Your task to perform on an android device: turn notification dots on Image 0: 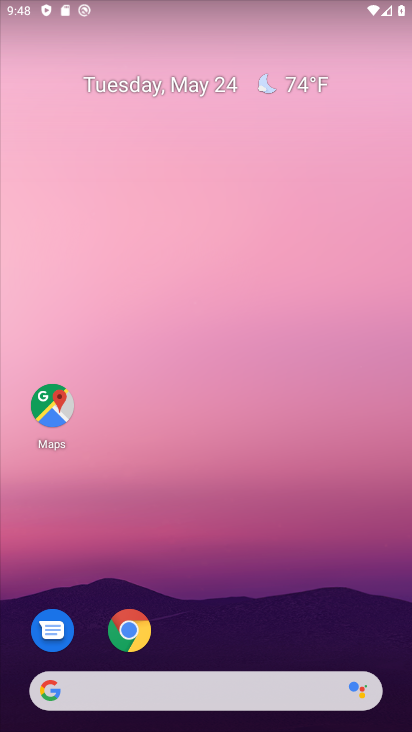
Step 0: drag from (250, 652) to (187, 206)
Your task to perform on an android device: turn notification dots on Image 1: 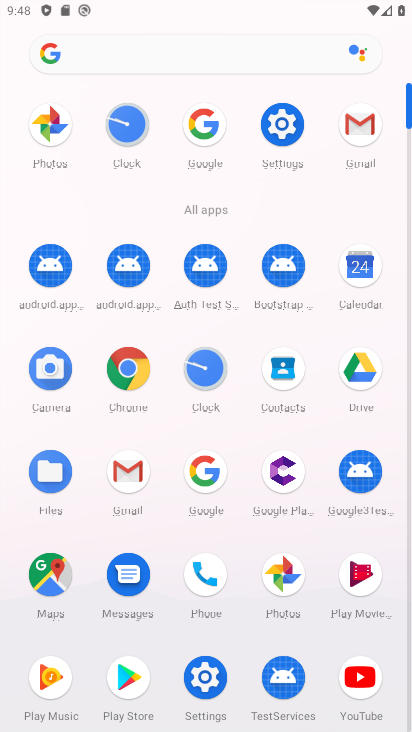
Step 1: click (284, 148)
Your task to perform on an android device: turn notification dots on Image 2: 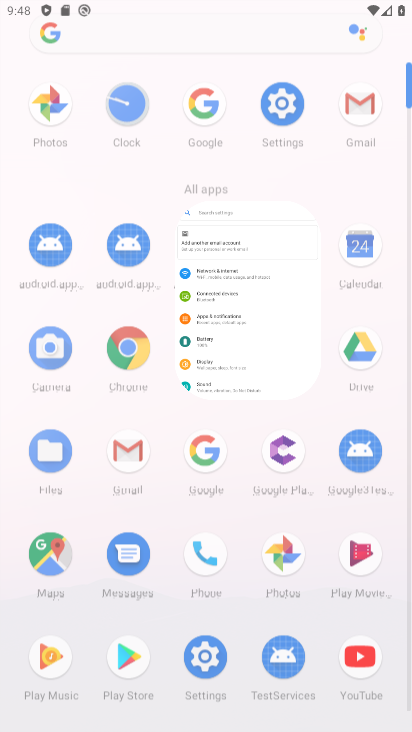
Step 2: click (284, 148)
Your task to perform on an android device: turn notification dots on Image 3: 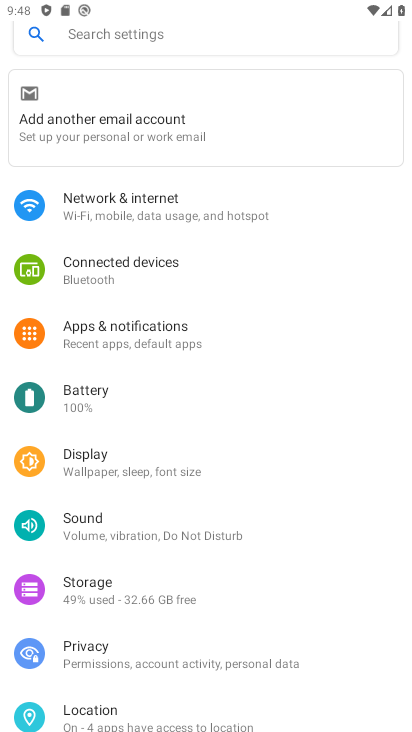
Step 3: drag from (138, 608) to (87, 305)
Your task to perform on an android device: turn notification dots on Image 4: 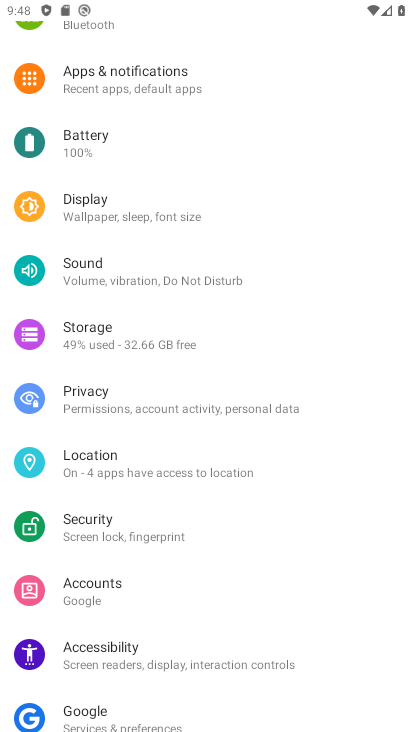
Step 4: drag from (110, 83) to (126, 298)
Your task to perform on an android device: turn notification dots on Image 5: 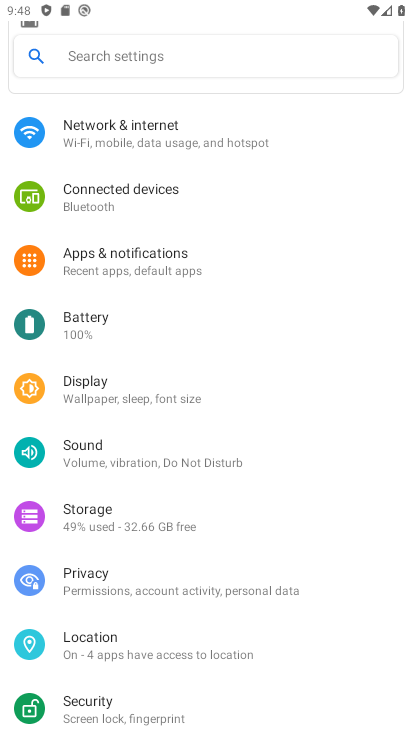
Step 5: click (116, 246)
Your task to perform on an android device: turn notification dots on Image 6: 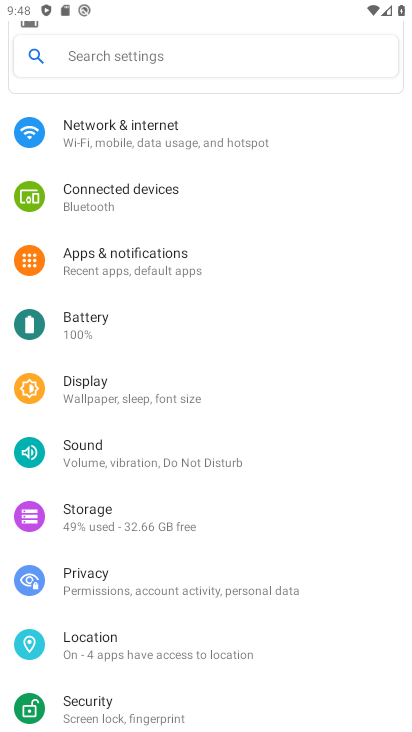
Step 6: click (116, 246)
Your task to perform on an android device: turn notification dots on Image 7: 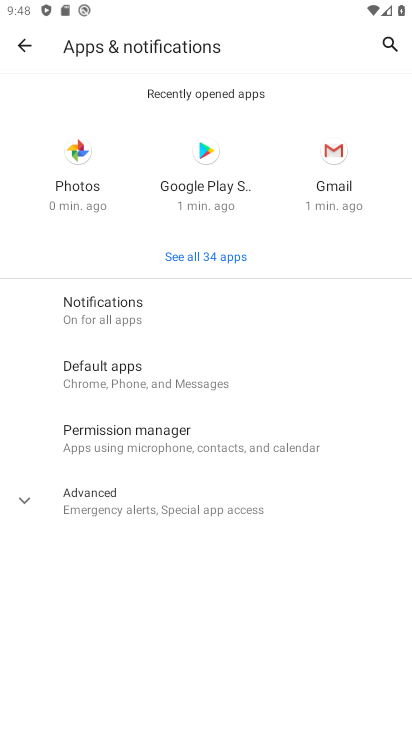
Step 7: click (131, 290)
Your task to perform on an android device: turn notification dots on Image 8: 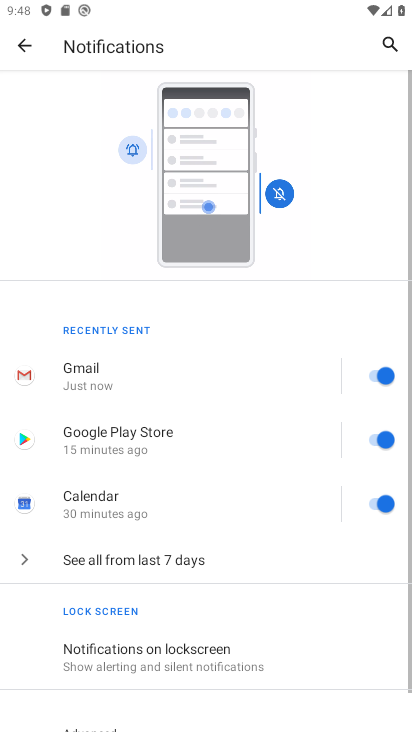
Step 8: drag from (133, 492) to (122, 94)
Your task to perform on an android device: turn notification dots on Image 9: 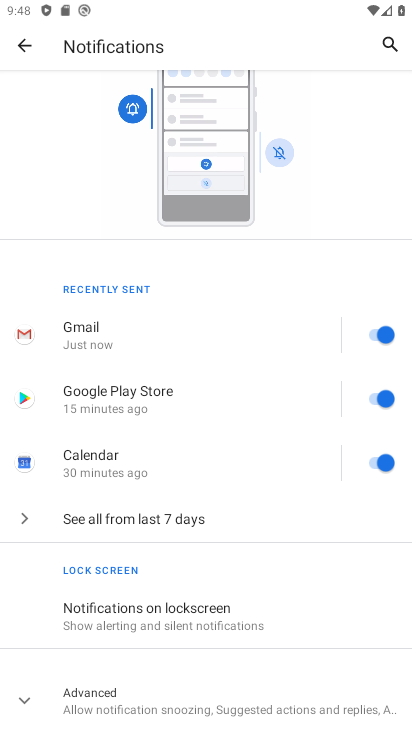
Step 9: click (100, 683)
Your task to perform on an android device: turn notification dots on Image 10: 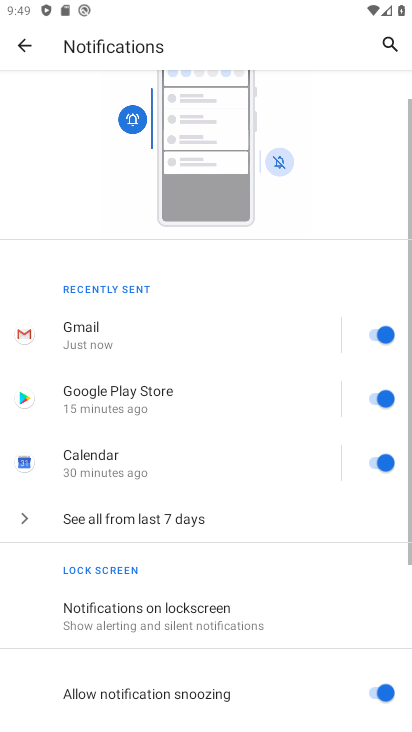
Step 10: drag from (100, 659) to (109, 252)
Your task to perform on an android device: turn notification dots on Image 11: 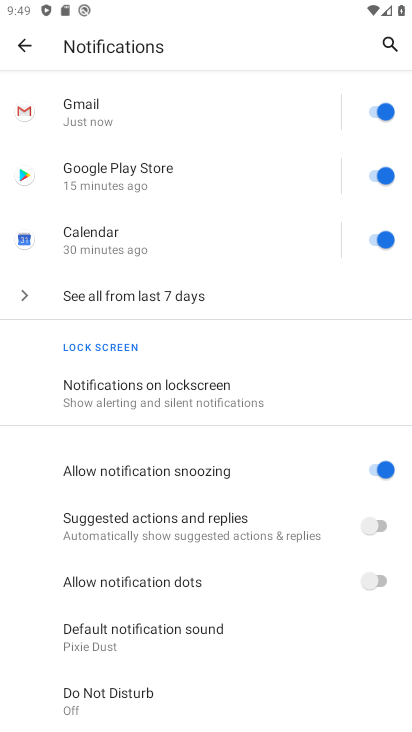
Step 11: click (376, 578)
Your task to perform on an android device: turn notification dots on Image 12: 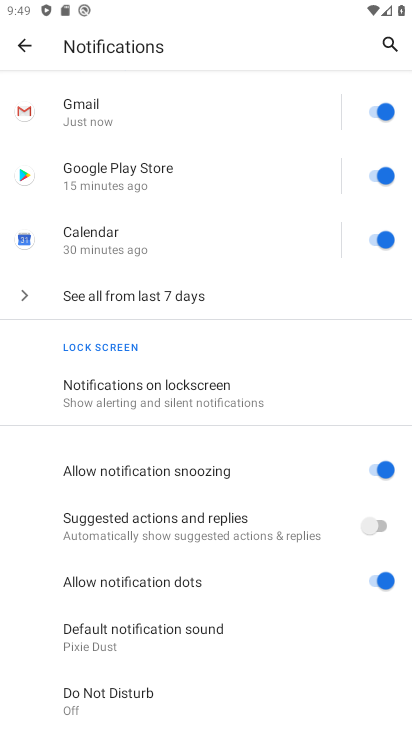
Step 12: task complete